Your task to perform on an android device: open app "Booking.com: Hotels and more" (install if not already installed) Image 0: 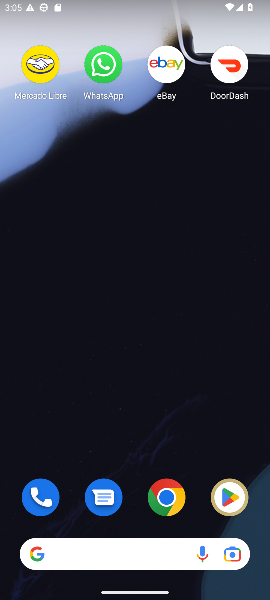
Step 0: click (224, 505)
Your task to perform on an android device: open app "Booking.com: Hotels and more" (install if not already installed) Image 1: 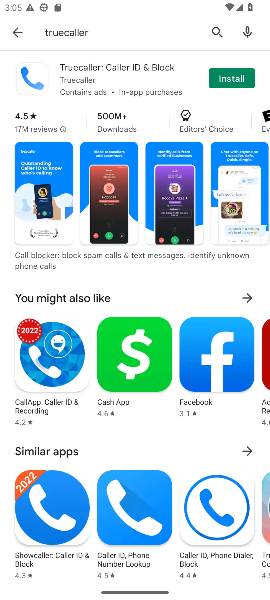
Step 1: click (221, 34)
Your task to perform on an android device: open app "Booking.com: Hotels and more" (install if not already installed) Image 2: 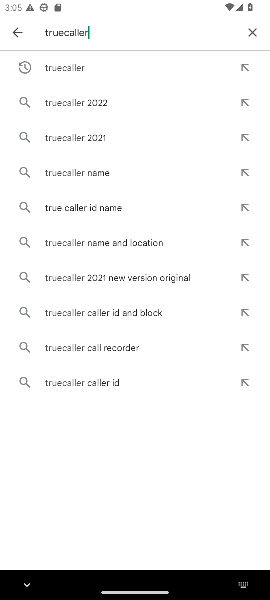
Step 2: click (247, 35)
Your task to perform on an android device: open app "Booking.com: Hotels and more" (install if not already installed) Image 3: 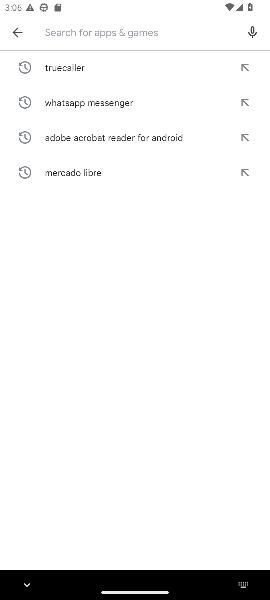
Step 3: type "Booking.com: Hotels and more"
Your task to perform on an android device: open app "Booking.com: Hotels and more" (install if not already installed) Image 4: 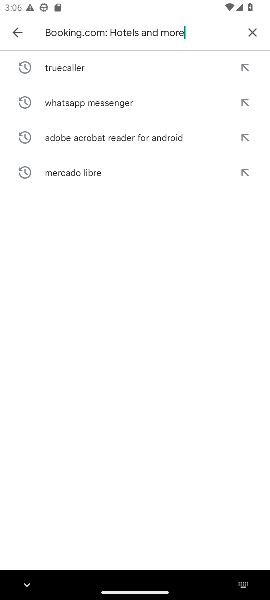
Step 4: type ""
Your task to perform on an android device: open app "Booking.com: Hotels and more" (install if not already installed) Image 5: 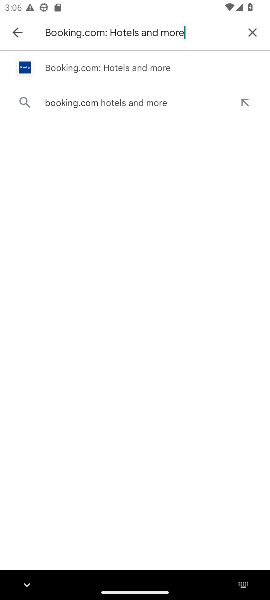
Step 5: click (129, 75)
Your task to perform on an android device: open app "Booking.com: Hotels and more" (install if not already installed) Image 6: 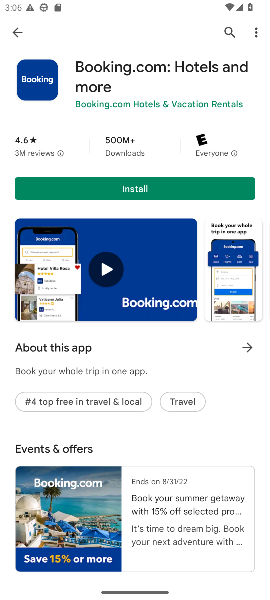
Step 6: click (151, 187)
Your task to perform on an android device: open app "Booking.com: Hotels and more" (install if not already installed) Image 7: 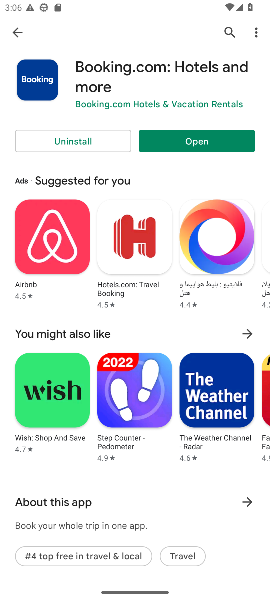
Step 7: click (207, 145)
Your task to perform on an android device: open app "Booking.com: Hotels and more" (install if not already installed) Image 8: 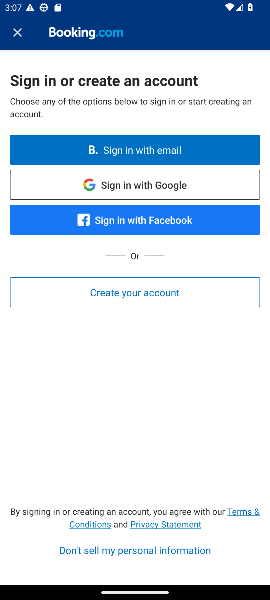
Step 8: task complete